Your task to perform on an android device: turn off sleep mode Image 0: 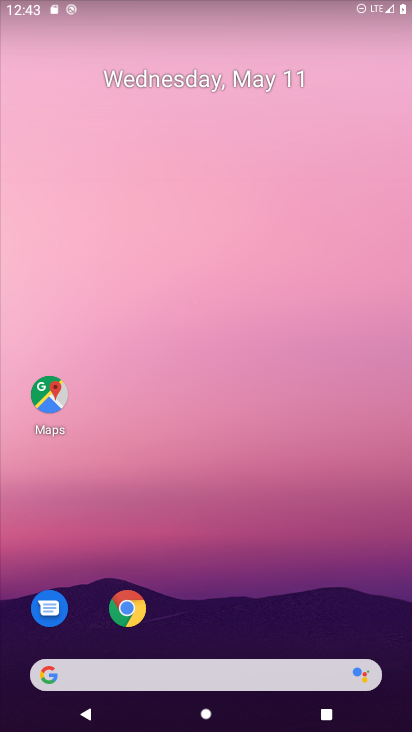
Step 0: drag from (271, 563) to (280, 33)
Your task to perform on an android device: turn off sleep mode Image 1: 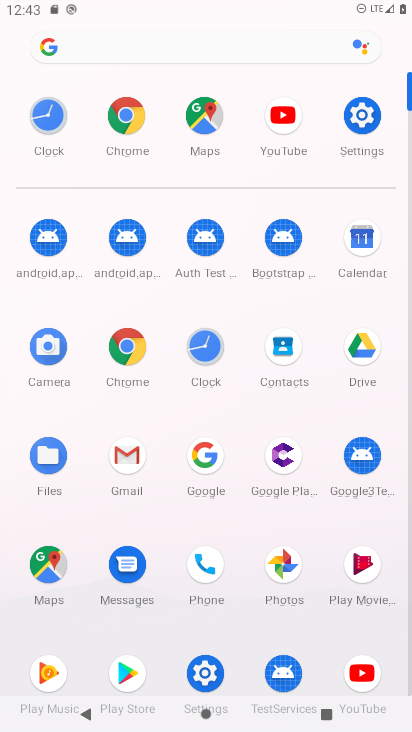
Step 1: click (349, 111)
Your task to perform on an android device: turn off sleep mode Image 2: 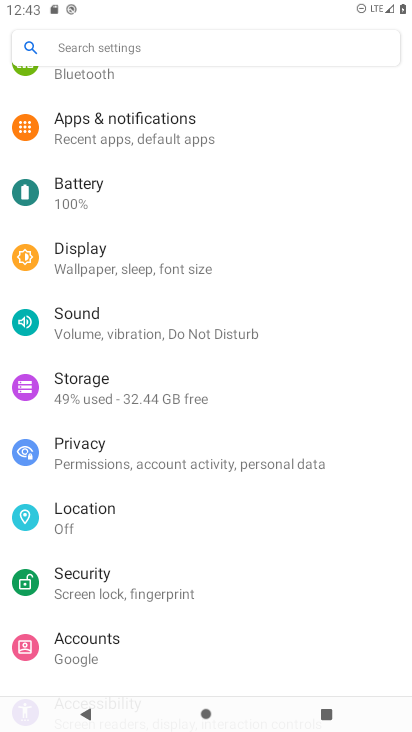
Step 2: click (155, 254)
Your task to perform on an android device: turn off sleep mode Image 3: 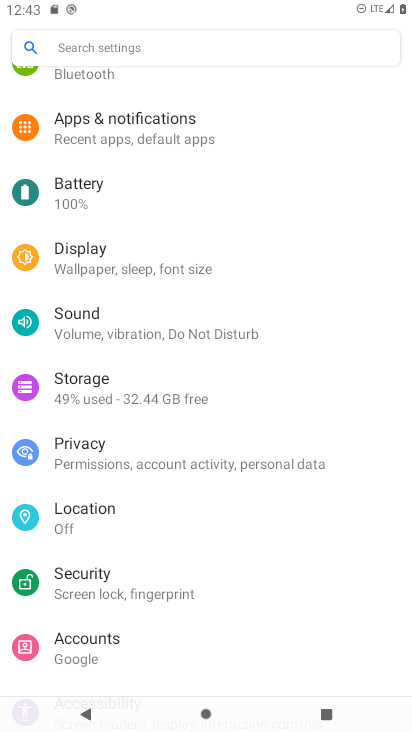
Step 3: click (162, 259)
Your task to perform on an android device: turn off sleep mode Image 4: 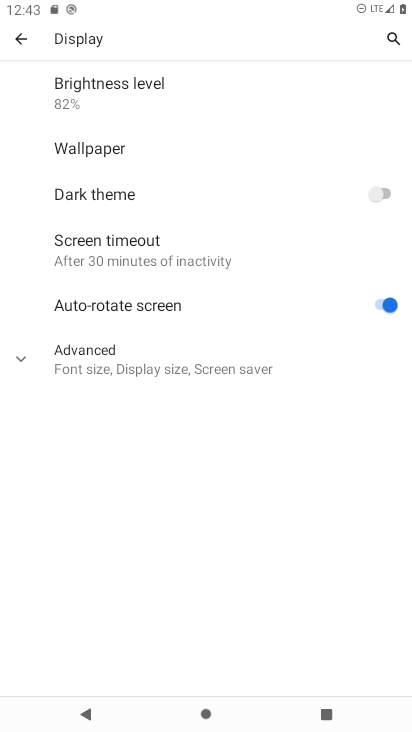
Step 4: click (15, 356)
Your task to perform on an android device: turn off sleep mode Image 5: 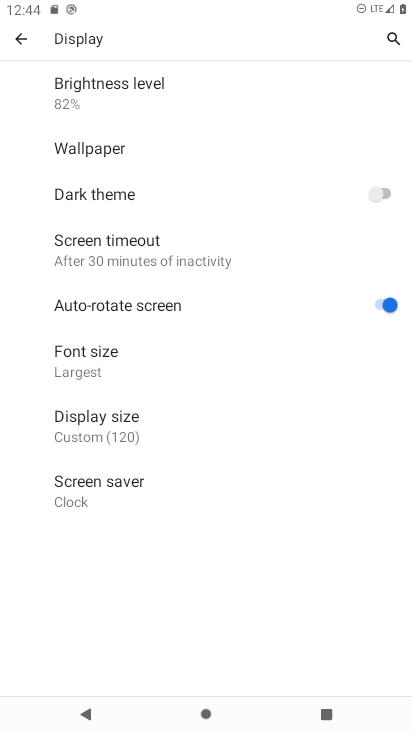
Step 5: task complete